Your task to perform on an android device: turn on sleep mode Image 0: 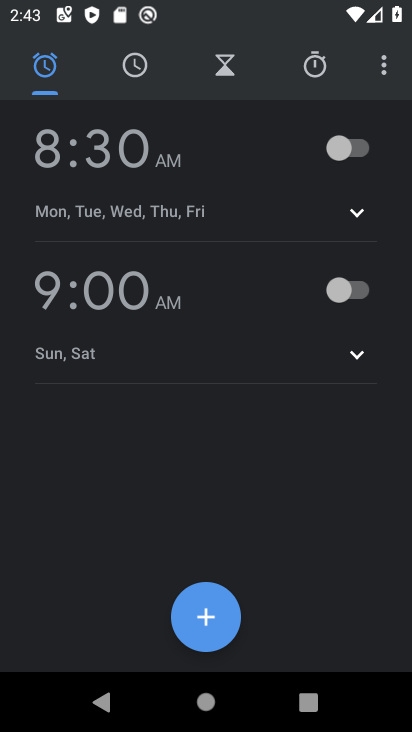
Step 0: press back button
Your task to perform on an android device: turn on sleep mode Image 1: 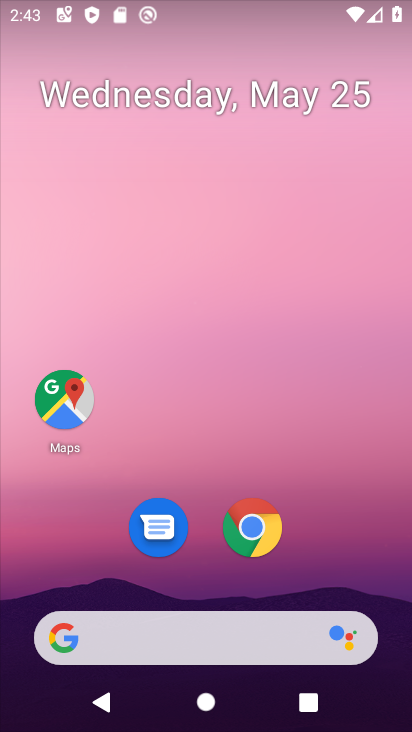
Step 1: drag from (212, 545) to (230, 85)
Your task to perform on an android device: turn on sleep mode Image 2: 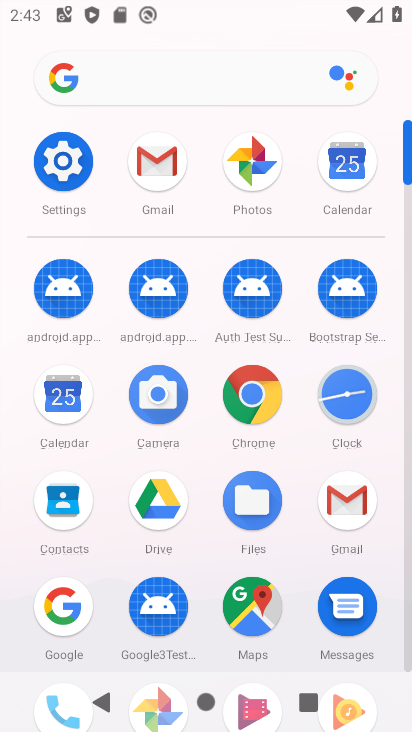
Step 2: click (76, 149)
Your task to perform on an android device: turn on sleep mode Image 3: 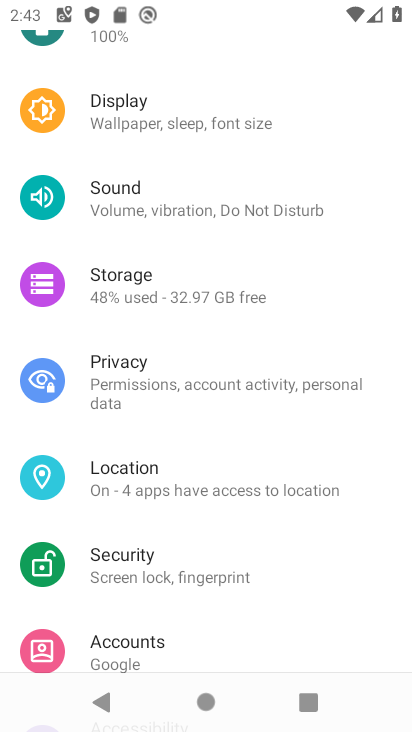
Step 3: drag from (189, 102) to (194, 394)
Your task to perform on an android device: turn on sleep mode Image 4: 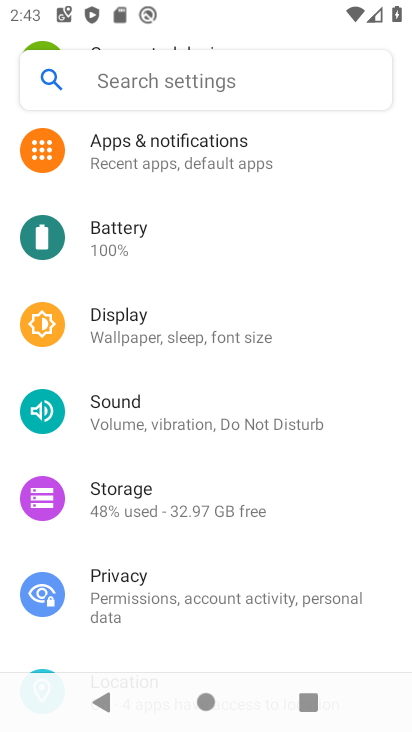
Step 4: click (118, 76)
Your task to perform on an android device: turn on sleep mode Image 5: 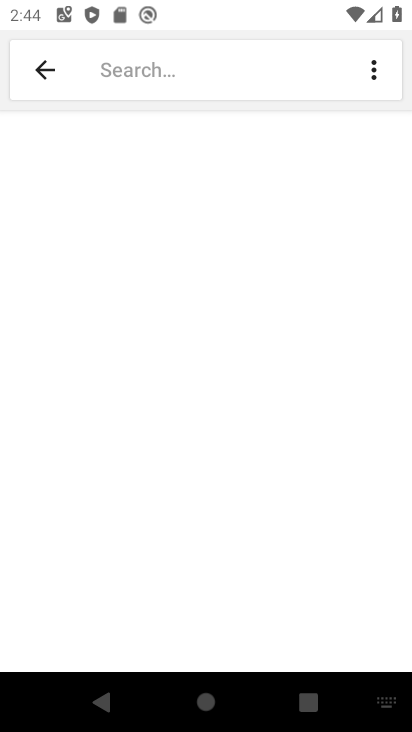
Step 5: type "sleep mode"
Your task to perform on an android device: turn on sleep mode Image 6: 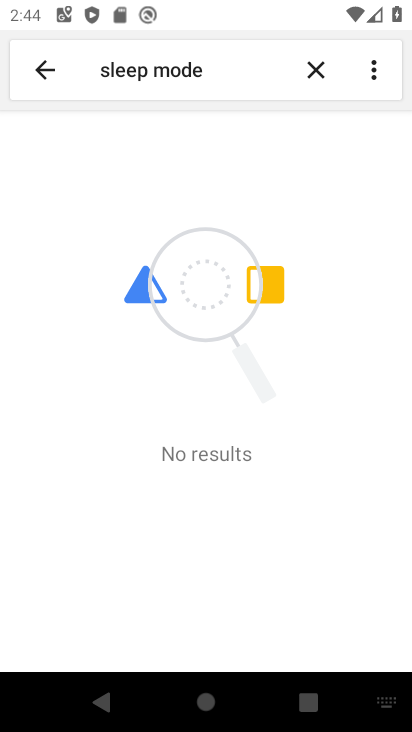
Step 6: task complete